Your task to perform on an android device: turn on bluetooth scan Image 0: 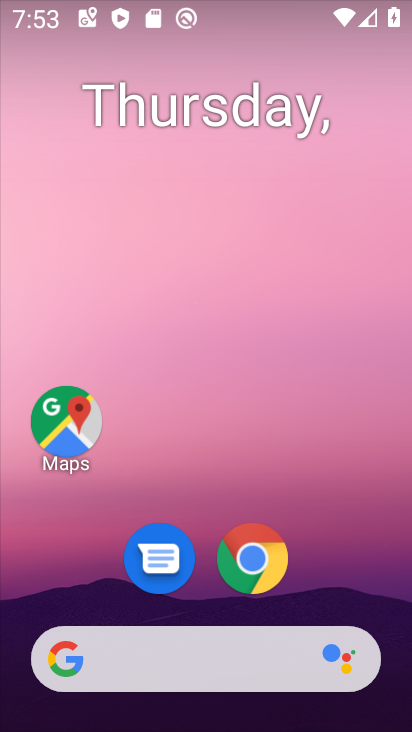
Step 0: drag from (155, 622) to (196, 188)
Your task to perform on an android device: turn on bluetooth scan Image 1: 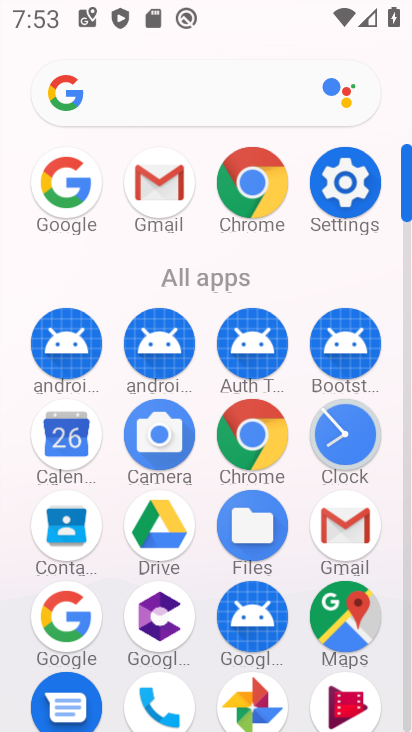
Step 1: click (347, 190)
Your task to perform on an android device: turn on bluetooth scan Image 2: 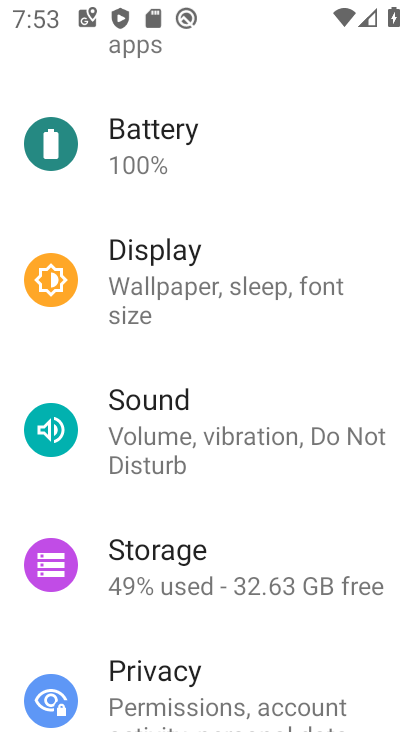
Step 2: drag from (184, 717) to (229, 247)
Your task to perform on an android device: turn on bluetooth scan Image 3: 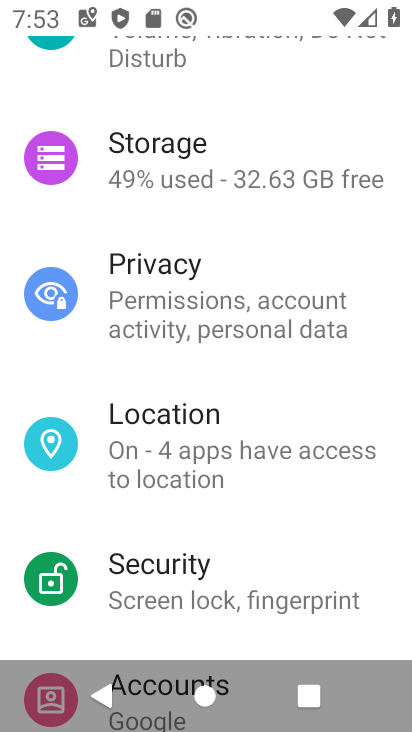
Step 3: drag from (180, 598) to (230, 169)
Your task to perform on an android device: turn on bluetooth scan Image 4: 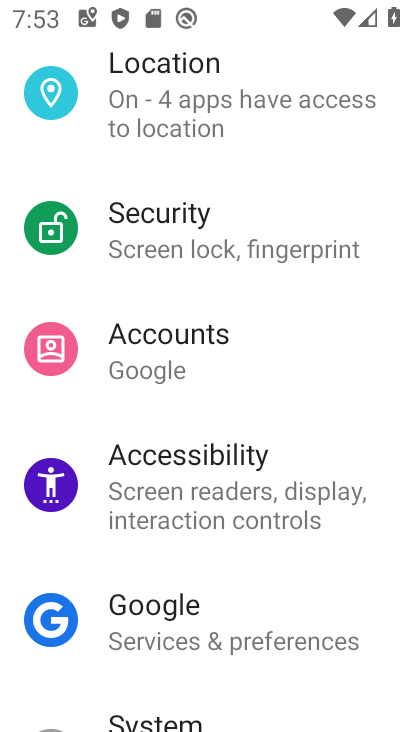
Step 4: click (195, 87)
Your task to perform on an android device: turn on bluetooth scan Image 5: 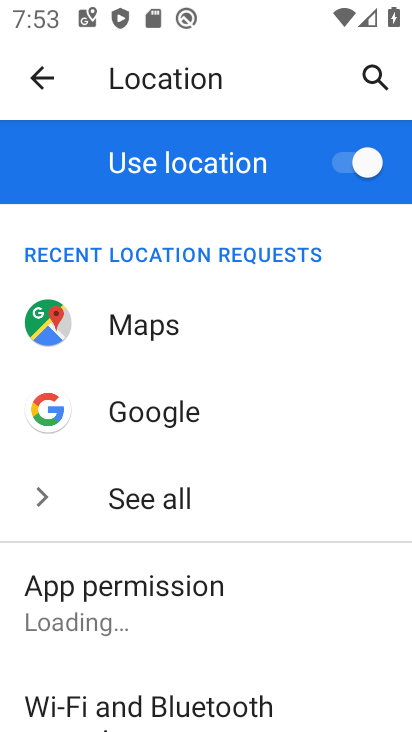
Step 5: drag from (308, 536) to (327, 81)
Your task to perform on an android device: turn on bluetooth scan Image 6: 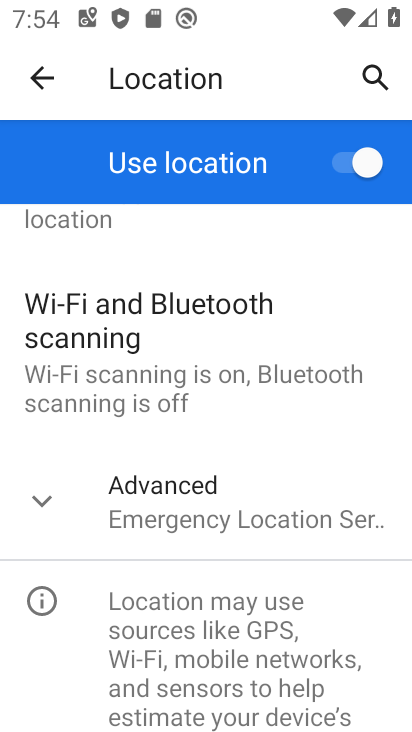
Step 6: click (134, 343)
Your task to perform on an android device: turn on bluetooth scan Image 7: 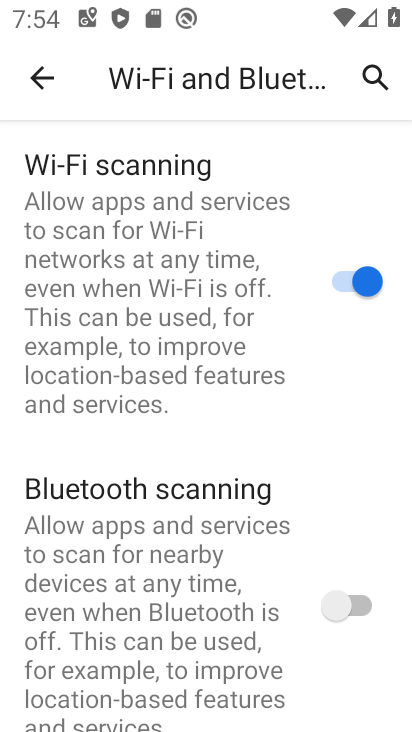
Step 7: click (361, 607)
Your task to perform on an android device: turn on bluetooth scan Image 8: 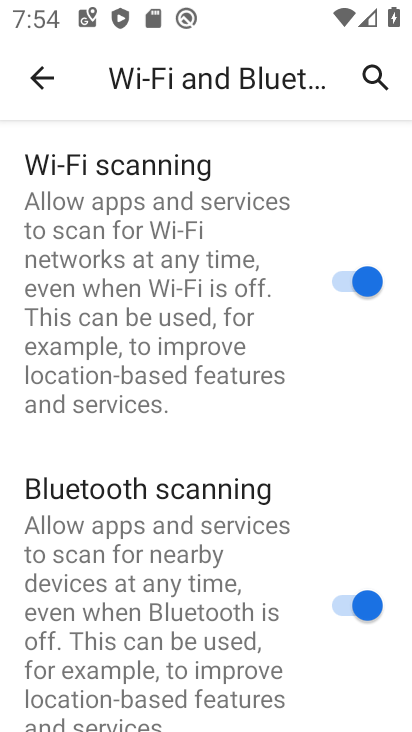
Step 8: task complete